Your task to perform on an android device: remove spam from my inbox in the gmail app Image 0: 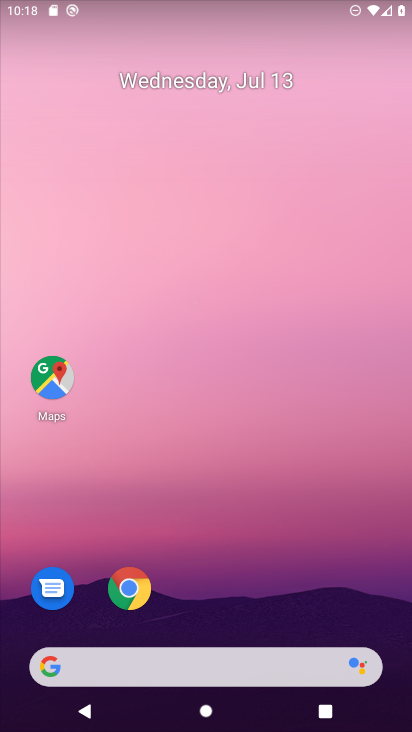
Step 0: drag from (212, 621) to (202, 107)
Your task to perform on an android device: remove spam from my inbox in the gmail app Image 1: 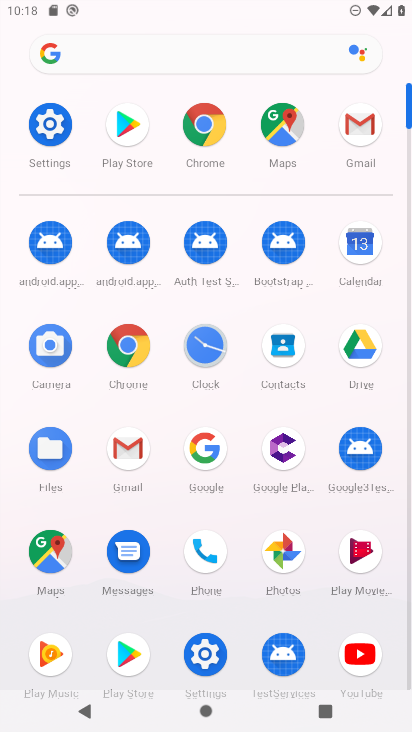
Step 1: click (111, 441)
Your task to perform on an android device: remove spam from my inbox in the gmail app Image 2: 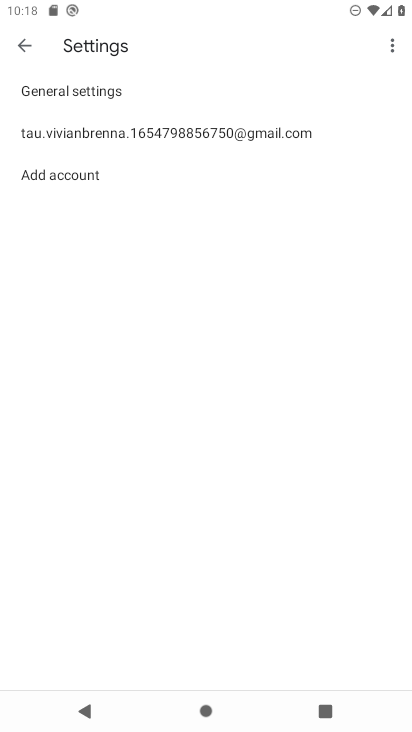
Step 2: click (21, 51)
Your task to perform on an android device: remove spam from my inbox in the gmail app Image 3: 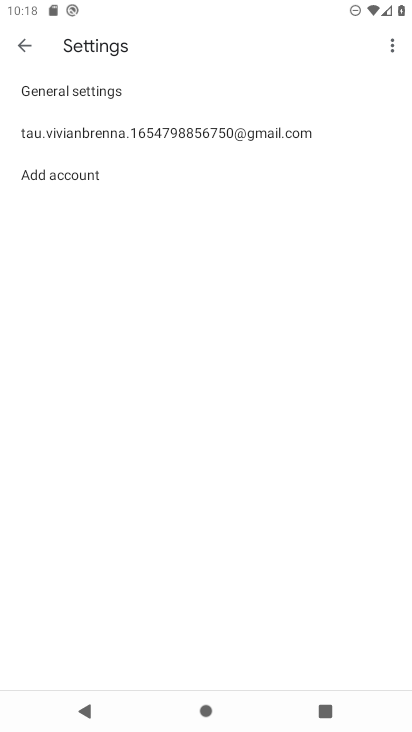
Step 3: click (28, 46)
Your task to perform on an android device: remove spam from my inbox in the gmail app Image 4: 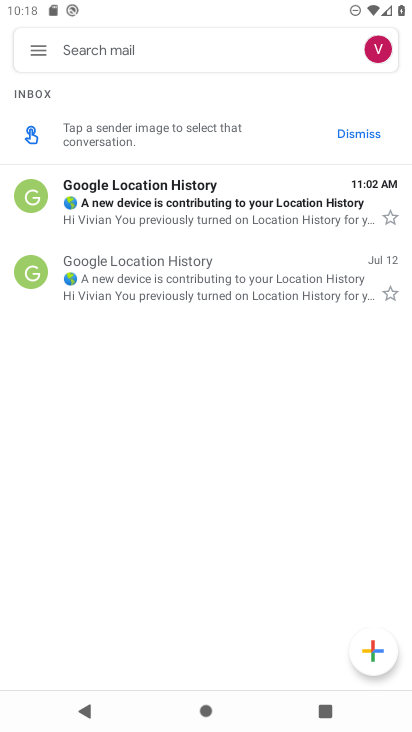
Step 4: click (28, 45)
Your task to perform on an android device: remove spam from my inbox in the gmail app Image 5: 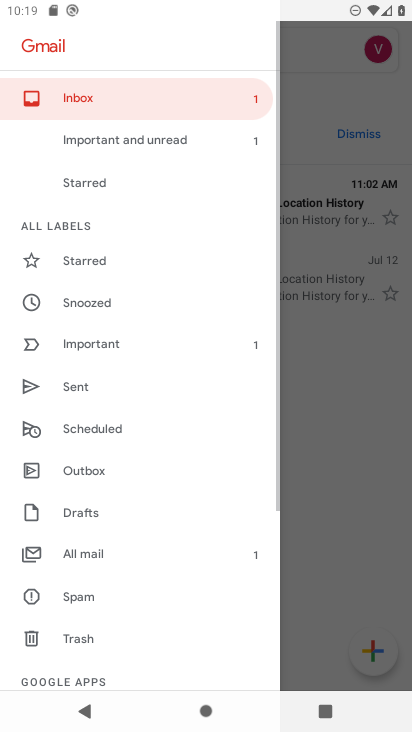
Step 5: click (80, 605)
Your task to perform on an android device: remove spam from my inbox in the gmail app Image 6: 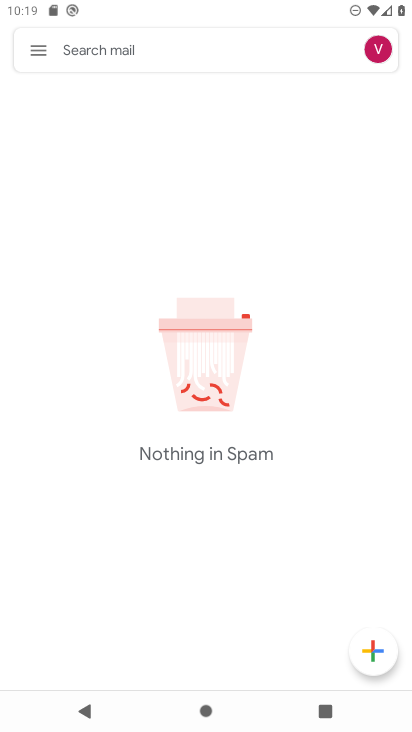
Step 6: task complete